Your task to perform on an android device: turn on airplane mode Image 0: 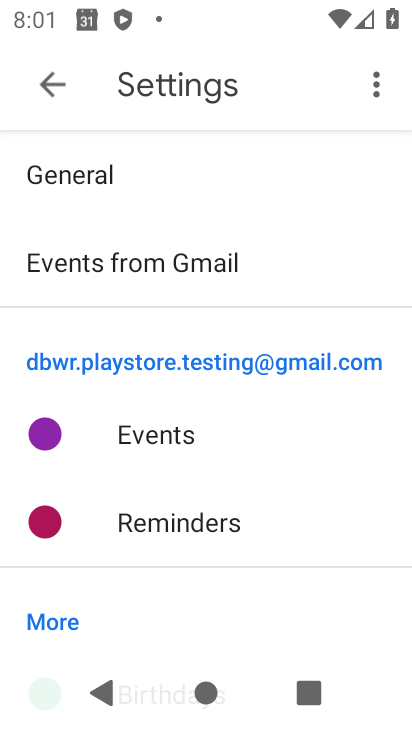
Step 0: drag from (230, 549) to (339, 257)
Your task to perform on an android device: turn on airplane mode Image 1: 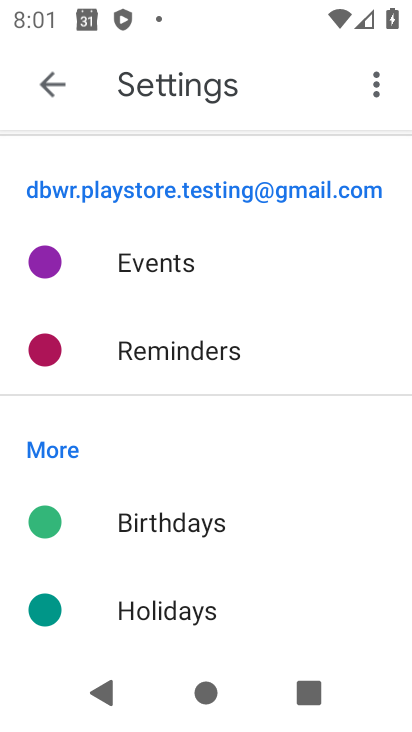
Step 1: drag from (231, 550) to (244, 124)
Your task to perform on an android device: turn on airplane mode Image 2: 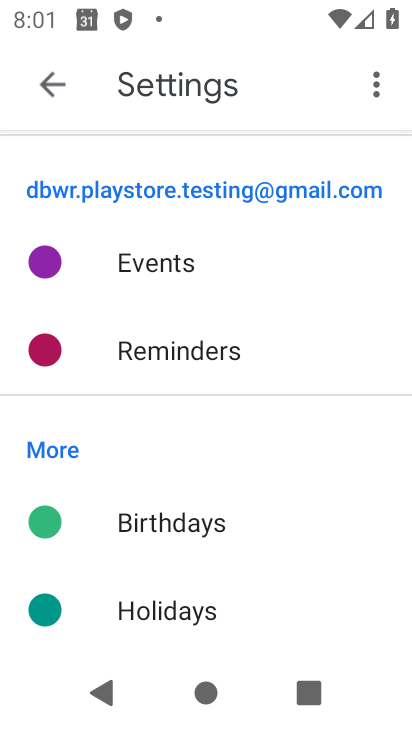
Step 2: press home button
Your task to perform on an android device: turn on airplane mode Image 3: 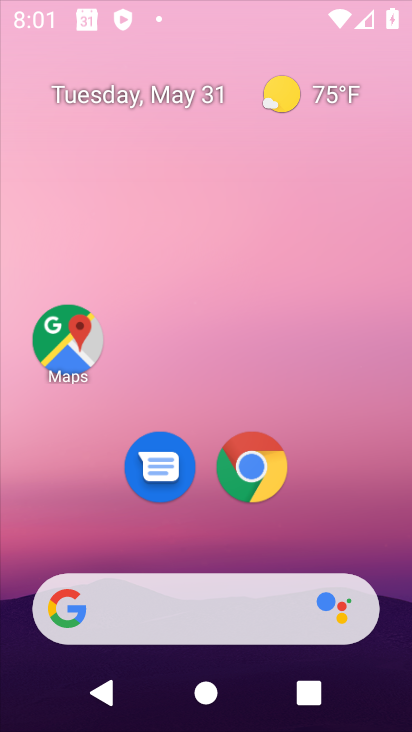
Step 3: drag from (177, 607) to (244, 128)
Your task to perform on an android device: turn on airplane mode Image 4: 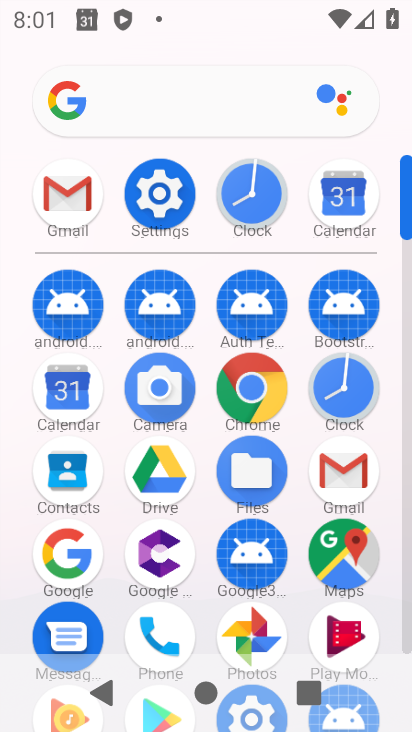
Step 4: click (171, 191)
Your task to perform on an android device: turn on airplane mode Image 5: 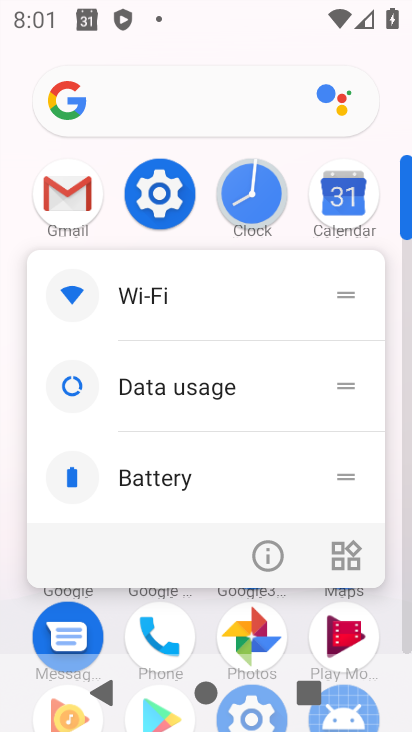
Step 5: click (261, 551)
Your task to perform on an android device: turn on airplane mode Image 6: 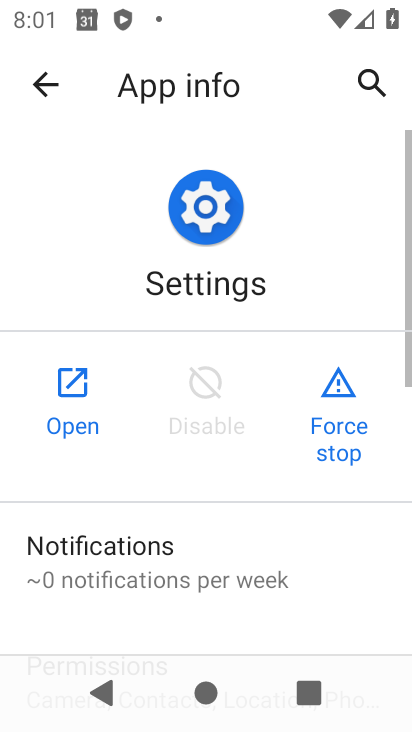
Step 6: click (80, 366)
Your task to perform on an android device: turn on airplane mode Image 7: 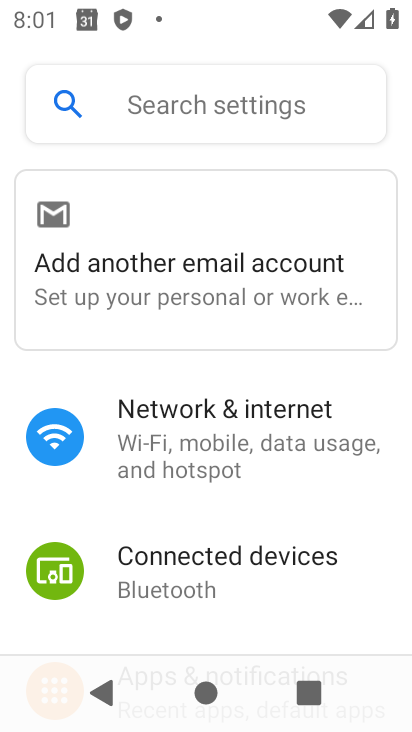
Step 7: click (250, 438)
Your task to perform on an android device: turn on airplane mode Image 8: 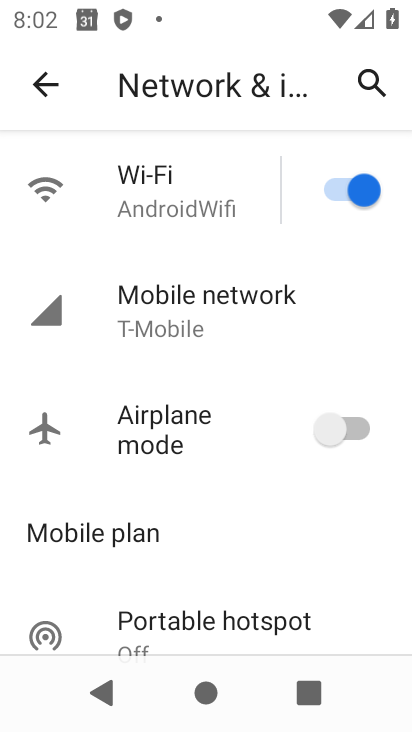
Step 8: click (212, 429)
Your task to perform on an android device: turn on airplane mode Image 9: 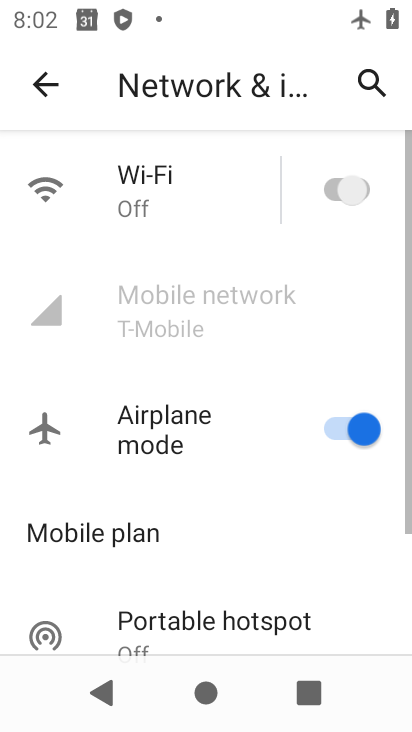
Step 9: task complete